Your task to perform on an android device: Is it going to rain today? Image 0: 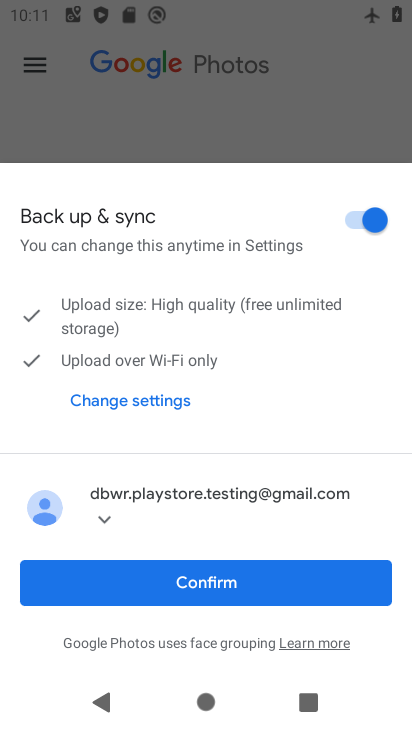
Step 0: press back button
Your task to perform on an android device: Is it going to rain today? Image 1: 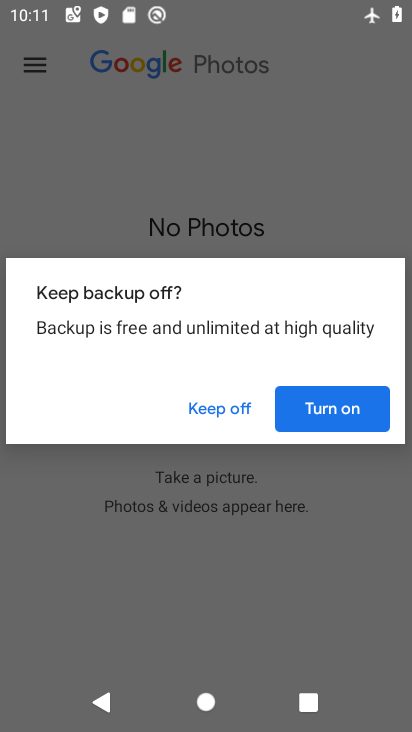
Step 1: press home button
Your task to perform on an android device: Is it going to rain today? Image 2: 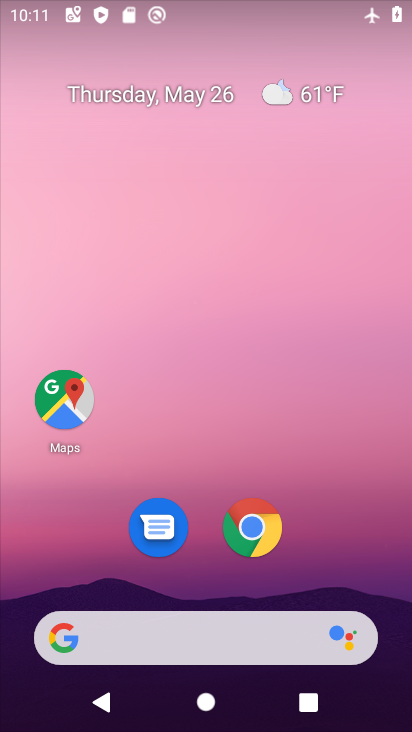
Step 2: click (266, 87)
Your task to perform on an android device: Is it going to rain today? Image 3: 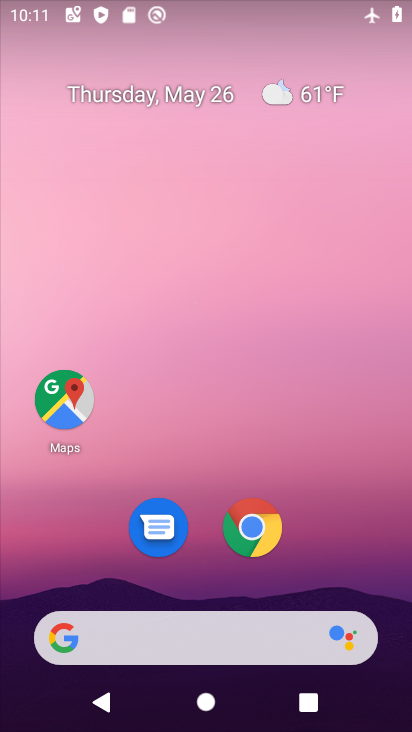
Step 3: click (150, 634)
Your task to perform on an android device: Is it going to rain today? Image 4: 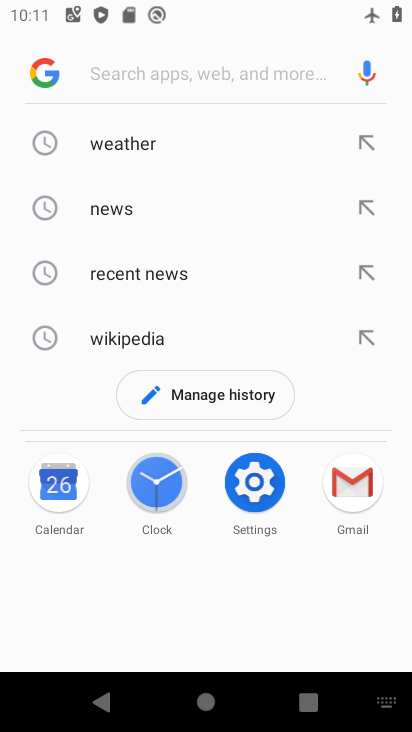
Step 4: click (109, 145)
Your task to perform on an android device: Is it going to rain today? Image 5: 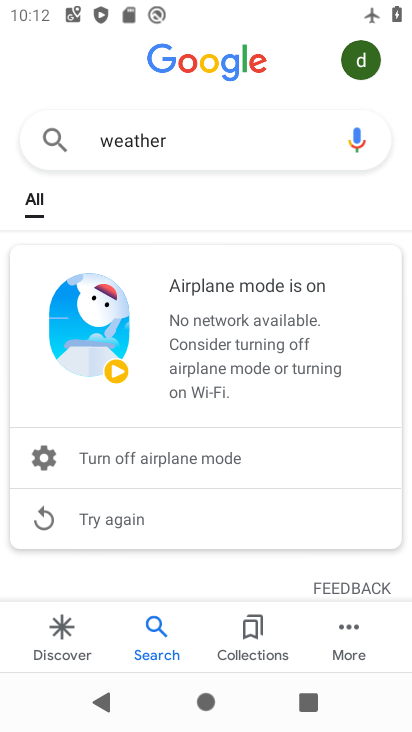
Step 5: drag from (369, 9) to (282, 474)
Your task to perform on an android device: Is it going to rain today? Image 6: 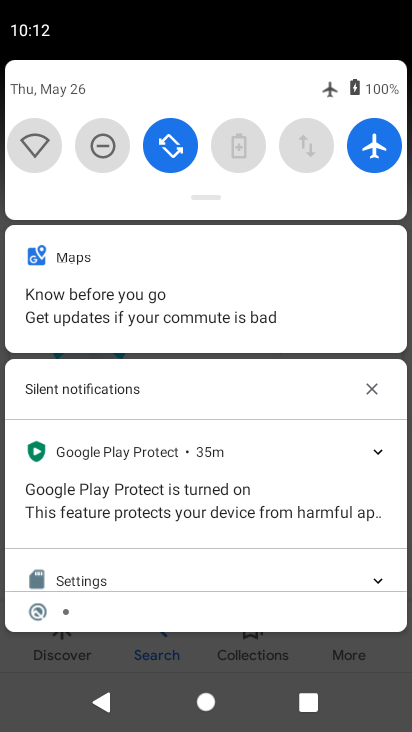
Step 6: click (381, 139)
Your task to perform on an android device: Is it going to rain today? Image 7: 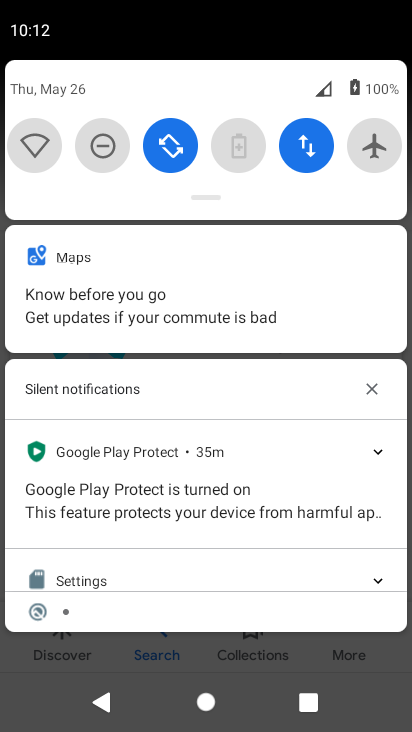
Step 7: click (160, 655)
Your task to perform on an android device: Is it going to rain today? Image 8: 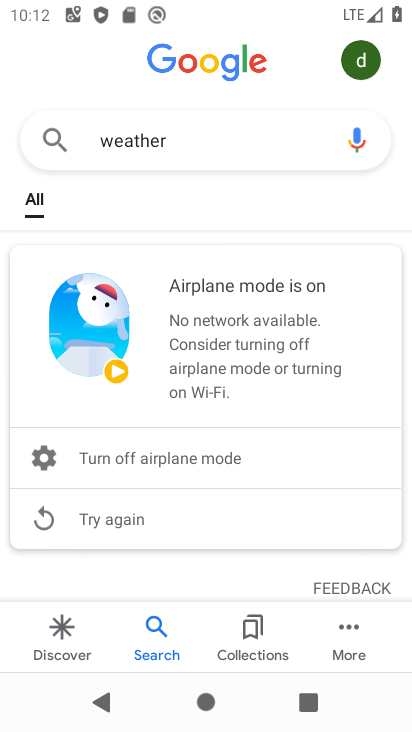
Step 8: click (110, 516)
Your task to perform on an android device: Is it going to rain today? Image 9: 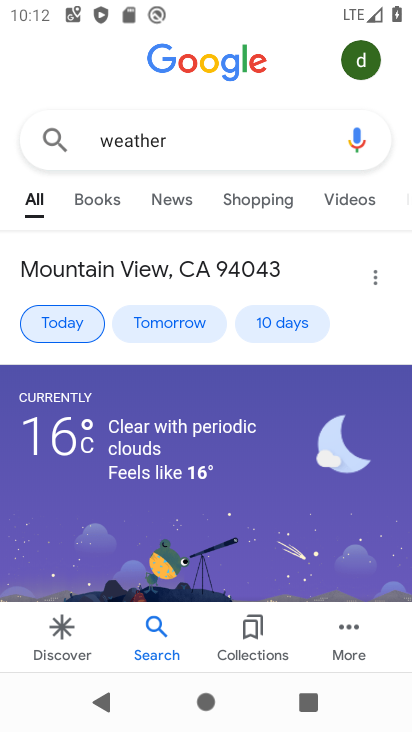
Step 9: task complete